Your task to perform on an android device: Open Google Maps and go to "Timeline" Image 0: 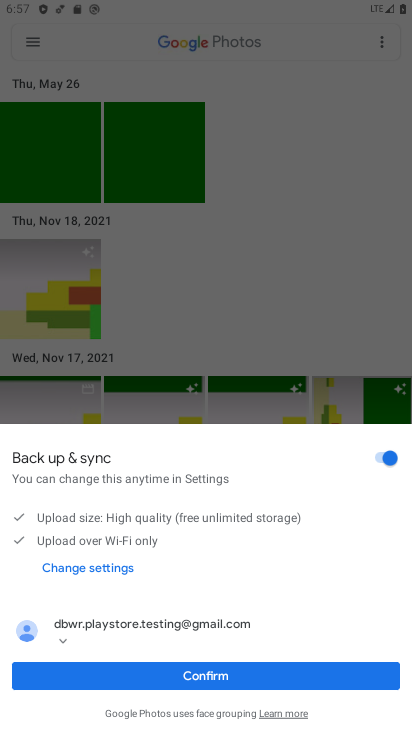
Step 0: press home button
Your task to perform on an android device: Open Google Maps and go to "Timeline" Image 1: 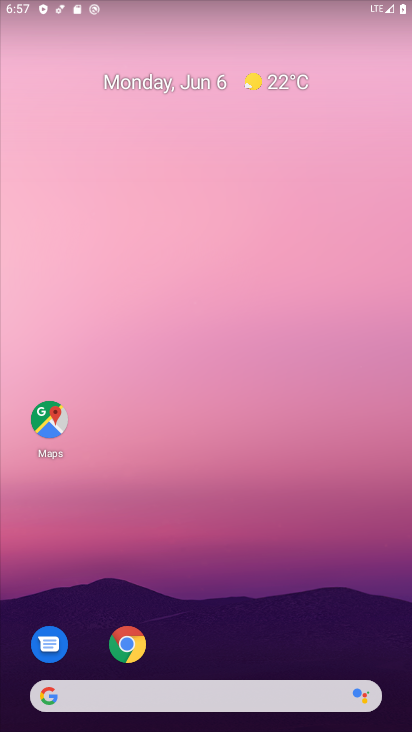
Step 1: click (162, 93)
Your task to perform on an android device: Open Google Maps and go to "Timeline" Image 2: 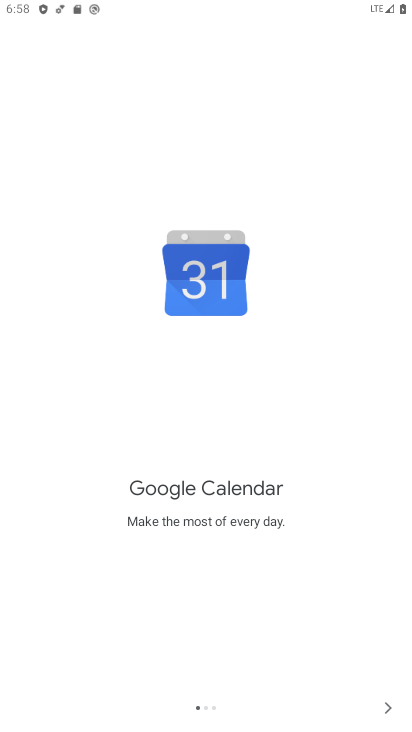
Step 2: press home button
Your task to perform on an android device: Open Google Maps and go to "Timeline" Image 3: 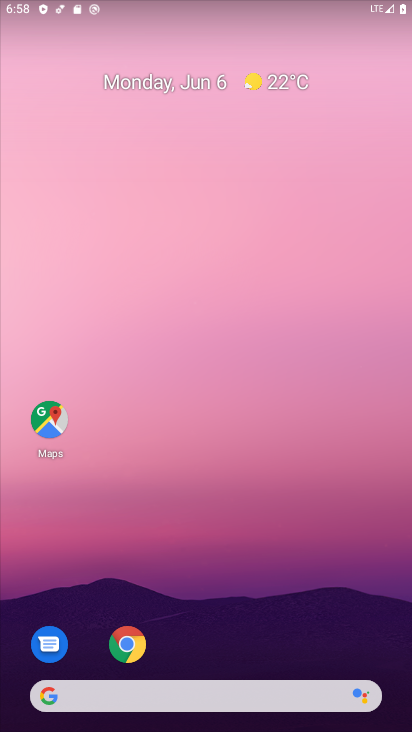
Step 3: drag from (284, 650) to (270, 102)
Your task to perform on an android device: Open Google Maps and go to "Timeline" Image 4: 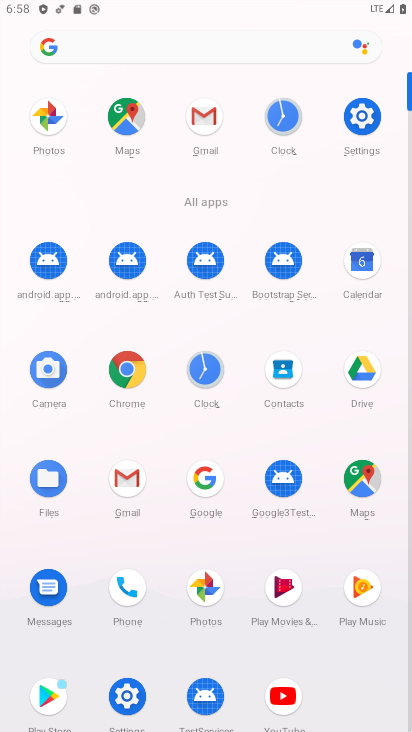
Step 4: click (131, 117)
Your task to perform on an android device: Open Google Maps and go to "Timeline" Image 5: 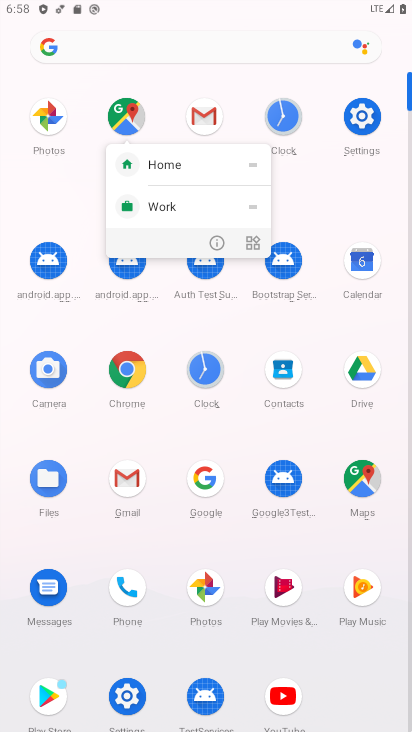
Step 5: click (130, 118)
Your task to perform on an android device: Open Google Maps and go to "Timeline" Image 6: 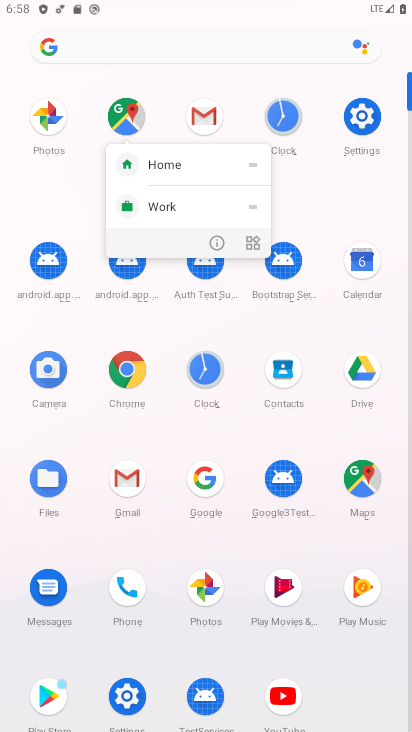
Step 6: click (128, 124)
Your task to perform on an android device: Open Google Maps and go to "Timeline" Image 7: 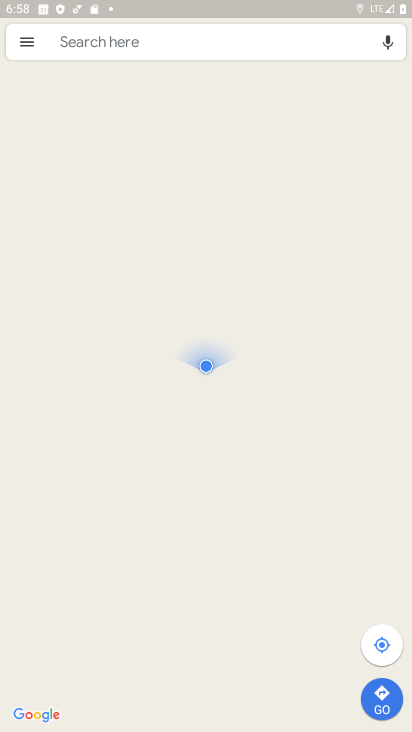
Step 7: click (21, 39)
Your task to perform on an android device: Open Google Maps and go to "Timeline" Image 8: 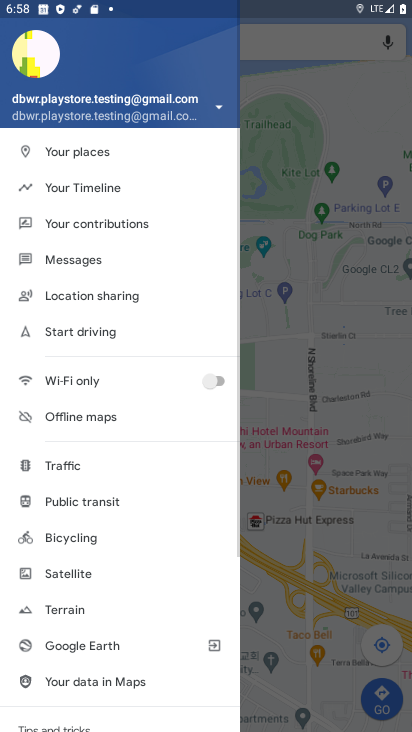
Step 8: click (104, 194)
Your task to perform on an android device: Open Google Maps and go to "Timeline" Image 9: 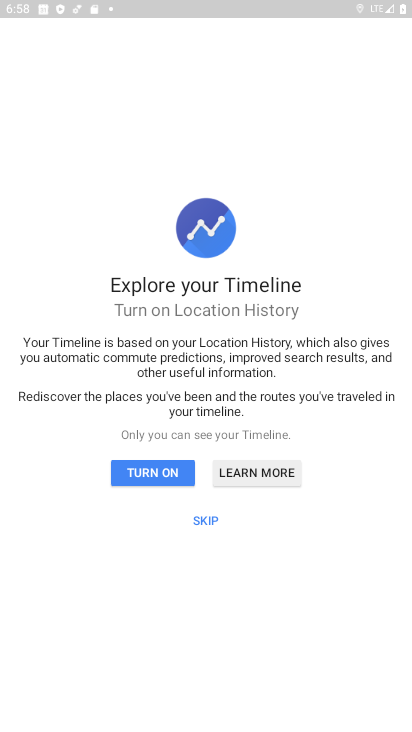
Step 9: click (212, 514)
Your task to perform on an android device: Open Google Maps and go to "Timeline" Image 10: 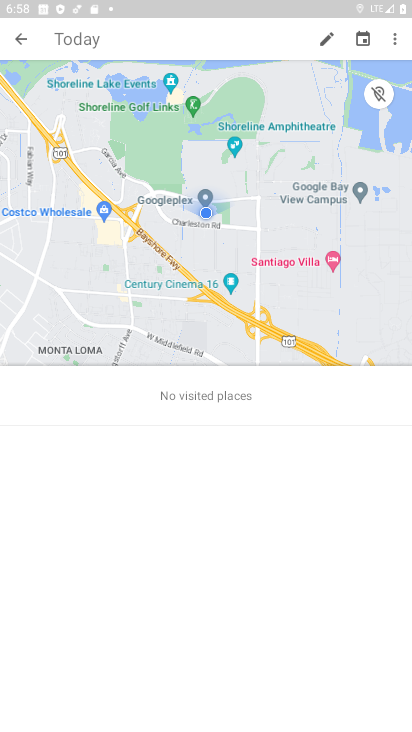
Step 10: task complete